Your task to perform on an android device: Open Google Chrome and open the bookmarks view Image 0: 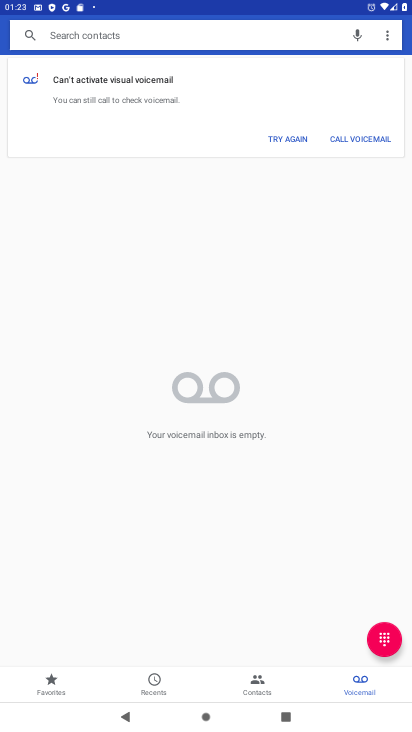
Step 0: press home button
Your task to perform on an android device: Open Google Chrome and open the bookmarks view Image 1: 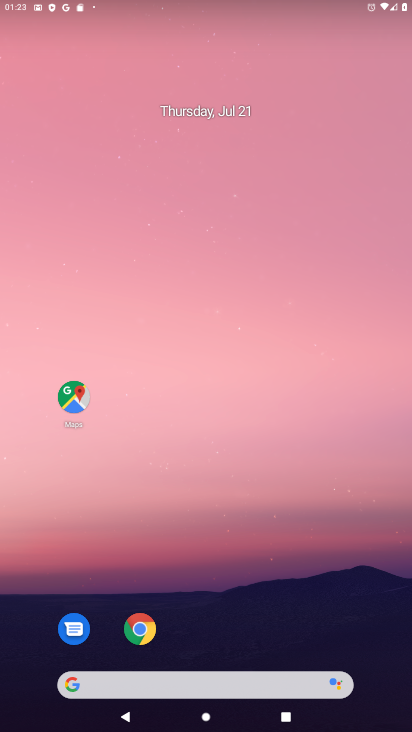
Step 1: drag from (217, 646) to (237, 107)
Your task to perform on an android device: Open Google Chrome and open the bookmarks view Image 2: 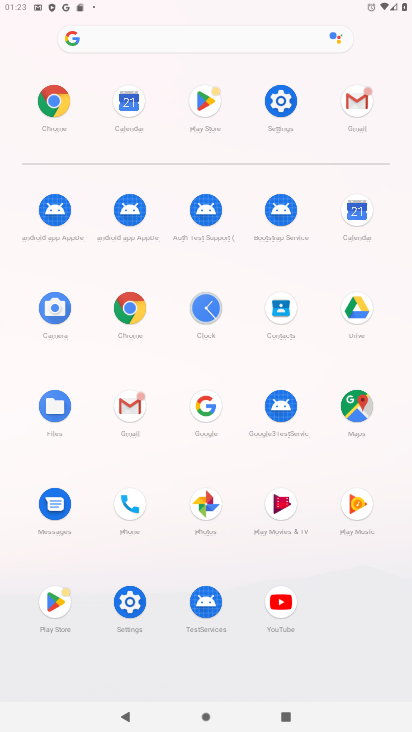
Step 2: click (129, 308)
Your task to perform on an android device: Open Google Chrome and open the bookmarks view Image 3: 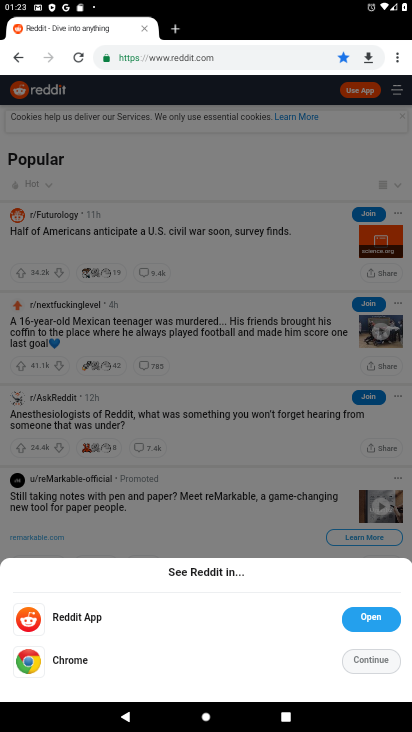
Step 3: click (394, 52)
Your task to perform on an android device: Open Google Chrome and open the bookmarks view Image 4: 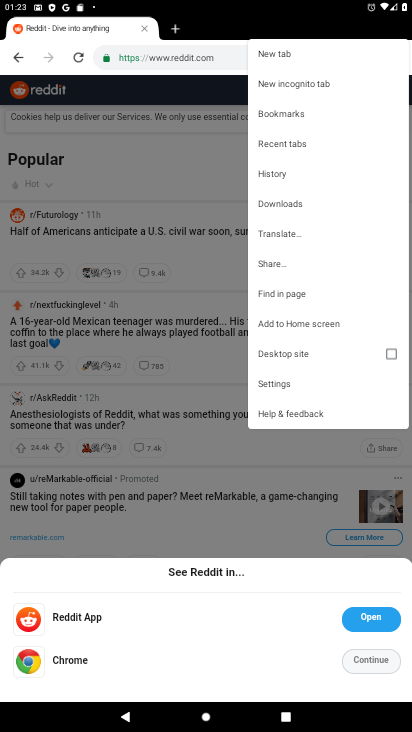
Step 4: click (275, 113)
Your task to perform on an android device: Open Google Chrome and open the bookmarks view Image 5: 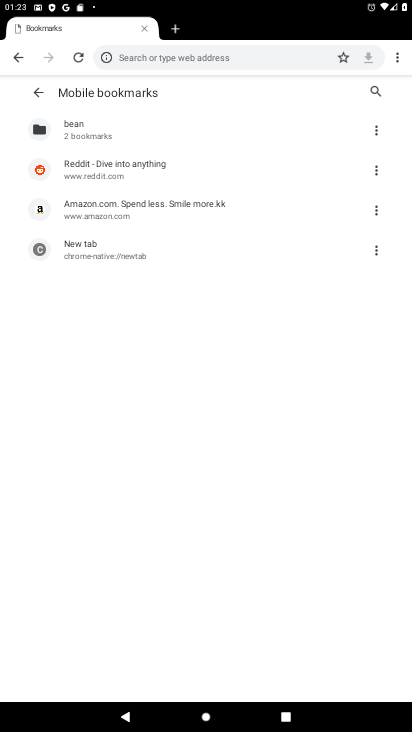
Step 5: click (114, 173)
Your task to perform on an android device: Open Google Chrome and open the bookmarks view Image 6: 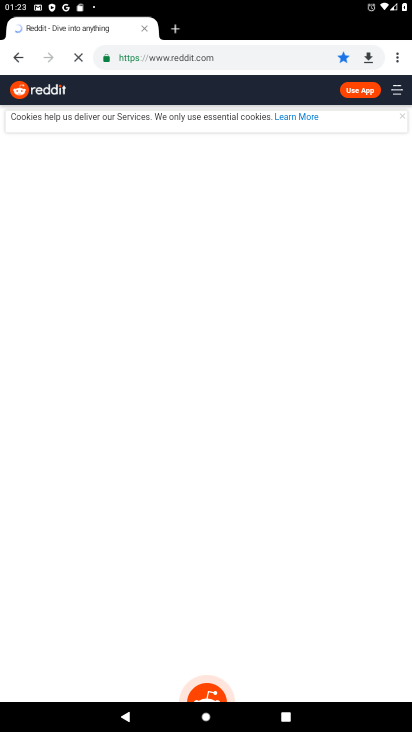
Step 6: task complete